Your task to perform on an android device: change notification settings in the gmail app Image 0: 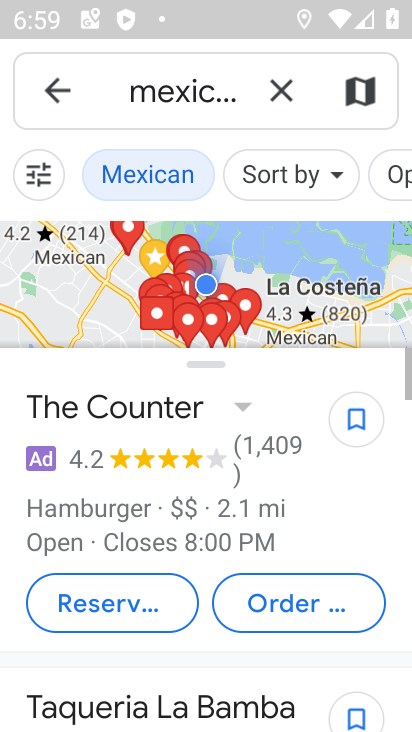
Step 0: press home button
Your task to perform on an android device: change notification settings in the gmail app Image 1: 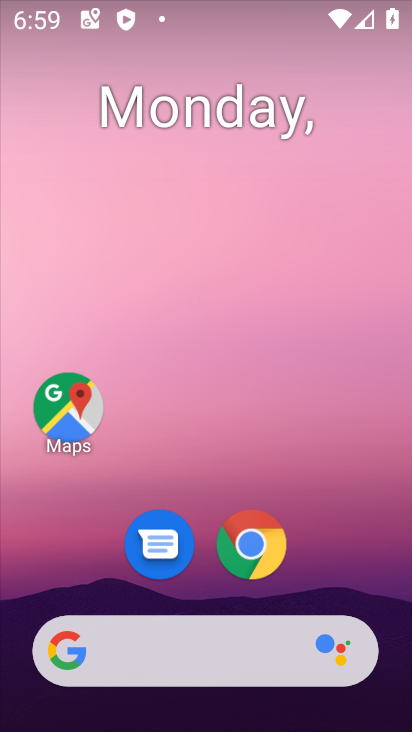
Step 1: drag from (308, 526) to (273, 147)
Your task to perform on an android device: change notification settings in the gmail app Image 2: 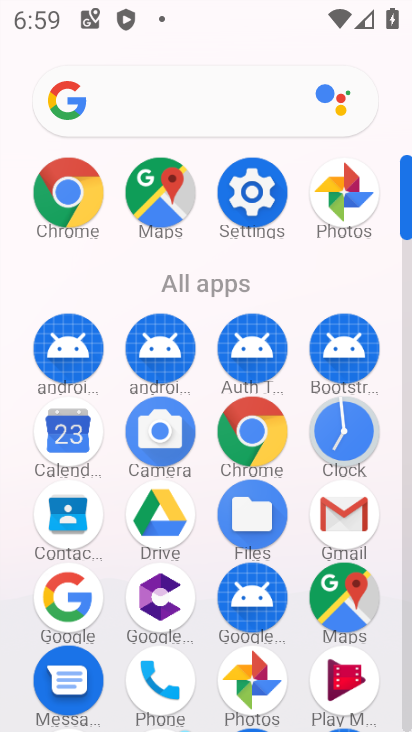
Step 2: click (338, 505)
Your task to perform on an android device: change notification settings in the gmail app Image 3: 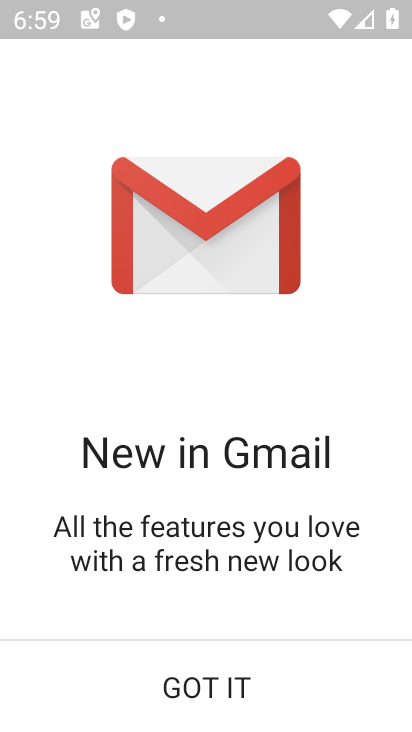
Step 3: click (201, 684)
Your task to perform on an android device: change notification settings in the gmail app Image 4: 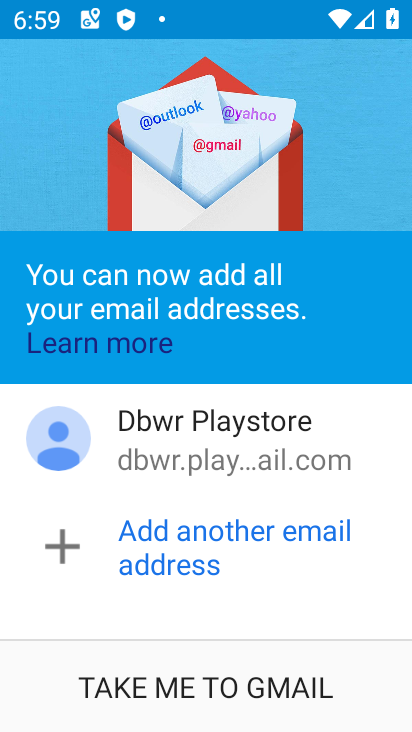
Step 4: click (206, 688)
Your task to perform on an android device: change notification settings in the gmail app Image 5: 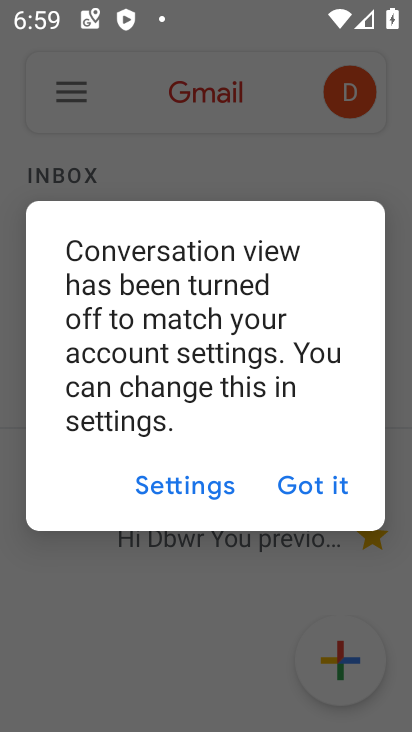
Step 5: click (302, 478)
Your task to perform on an android device: change notification settings in the gmail app Image 6: 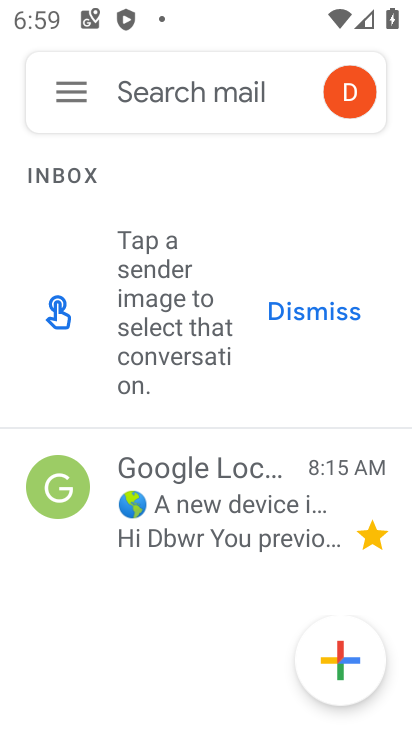
Step 6: click (63, 89)
Your task to perform on an android device: change notification settings in the gmail app Image 7: 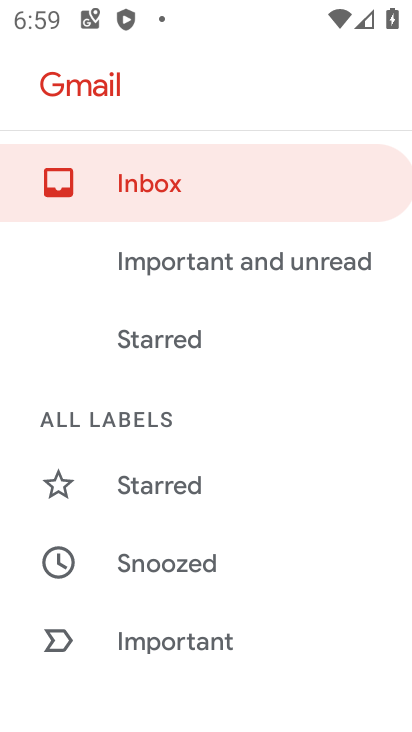
Step 7: drag from (255, 589) to (251, 316)
Your task to perform on an android device: change notification settings in the gmail app Image 8: 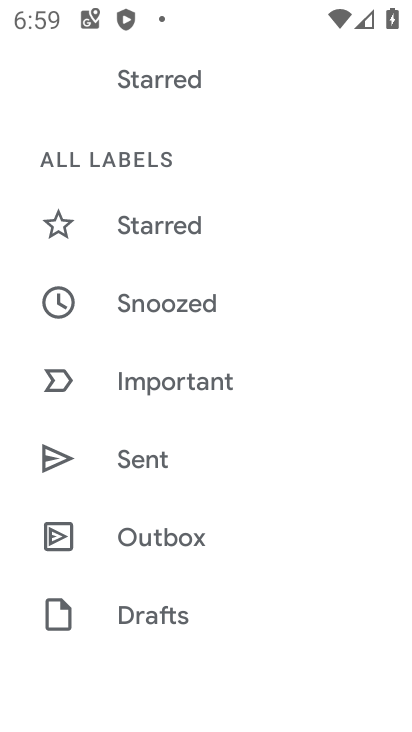
Step 8: drag from (236, 554) to (227, 248)
Your task to perform on an android device: change notification settings in the gmail app Image 9: 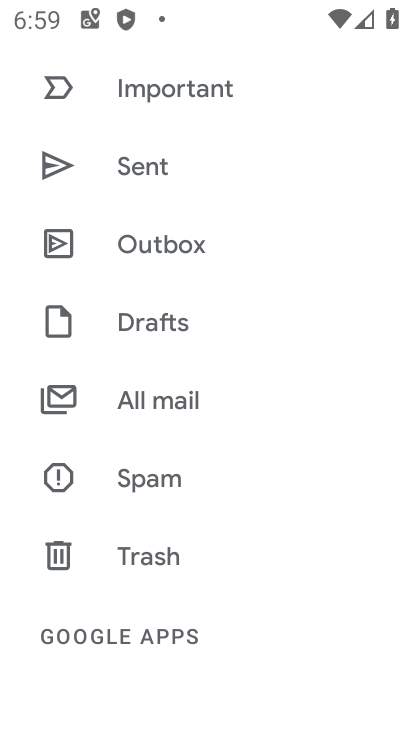
Step 9: drag from (208, 581) to (208, 323)
Your task to perform on an android device: change notification settings in the gmail app Image 10: 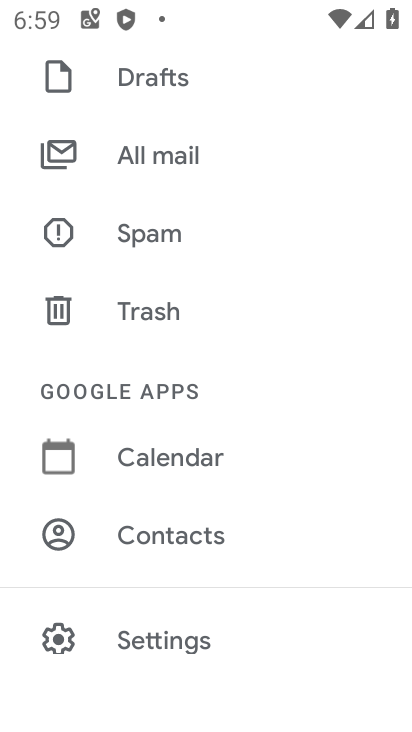
Step 10: drag from (205, 591) to (186, 357)
Your task to perform on an android device: change notification settings in the gmail app Image 11: 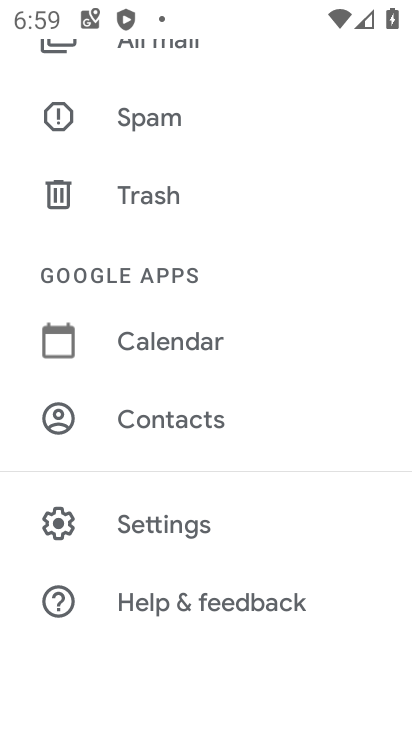
Step 11: click (164, 521)
Your task to perform on an android device: change notification settings in the gmail app Image 12: 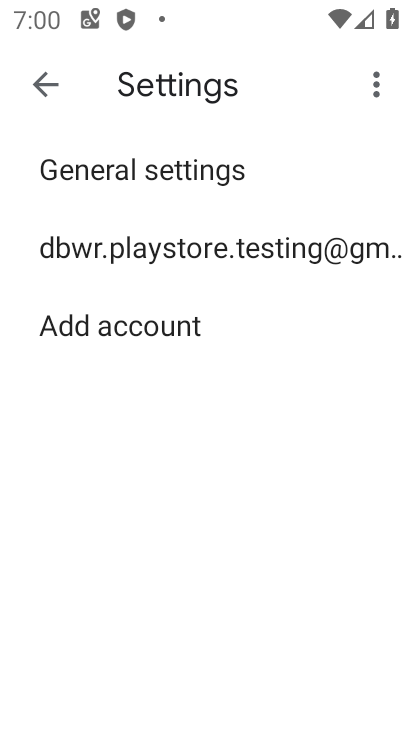
Step 12: click (139, 157)
Your task to perform on an android device: change notification settings in the gmail app Image 13: 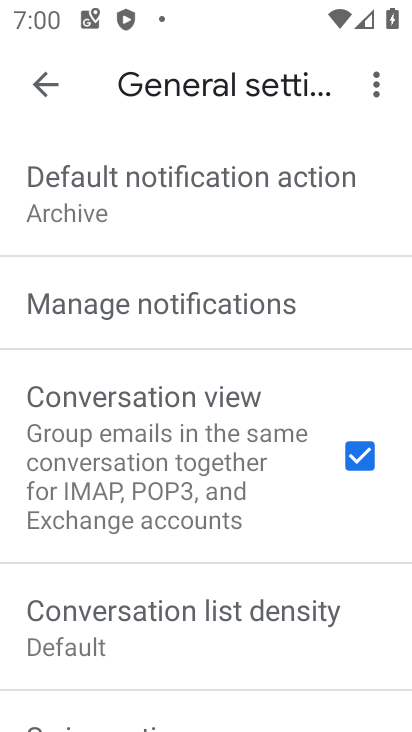
Step 13: click (142, 300)
Your task to perform on an android device: change notification settings in the gmail app Image 14: 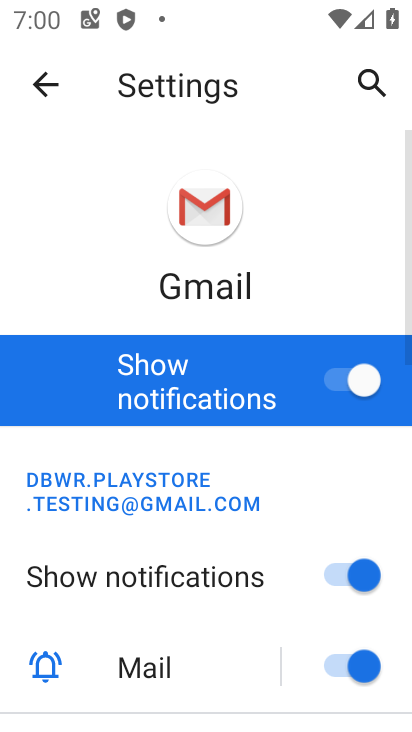
Step 14: click (337, 385)
Your task to perform on an android device: change notification settings in the gmail app Image 15: 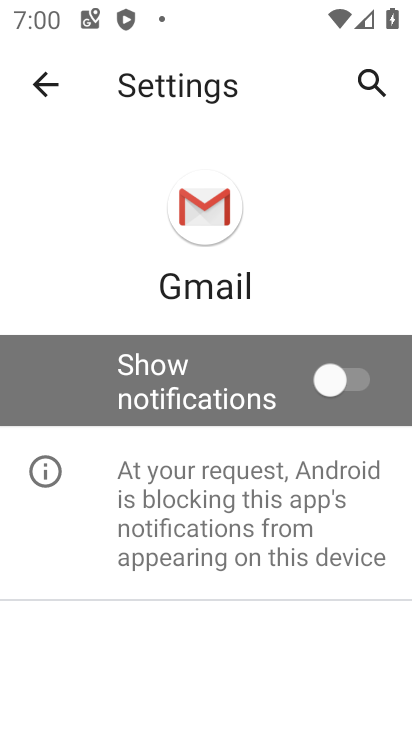
Step 15: task complete